Your task to perform on an android device: check data usage Image 0: 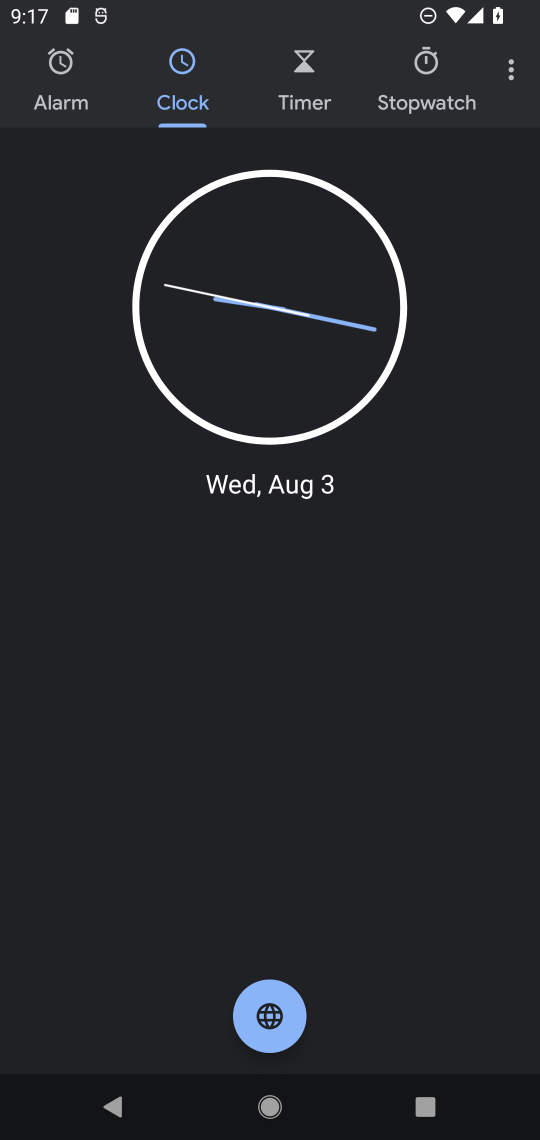
Step 0: press home button
Your task to perform on an android device: check data usage Image 1: 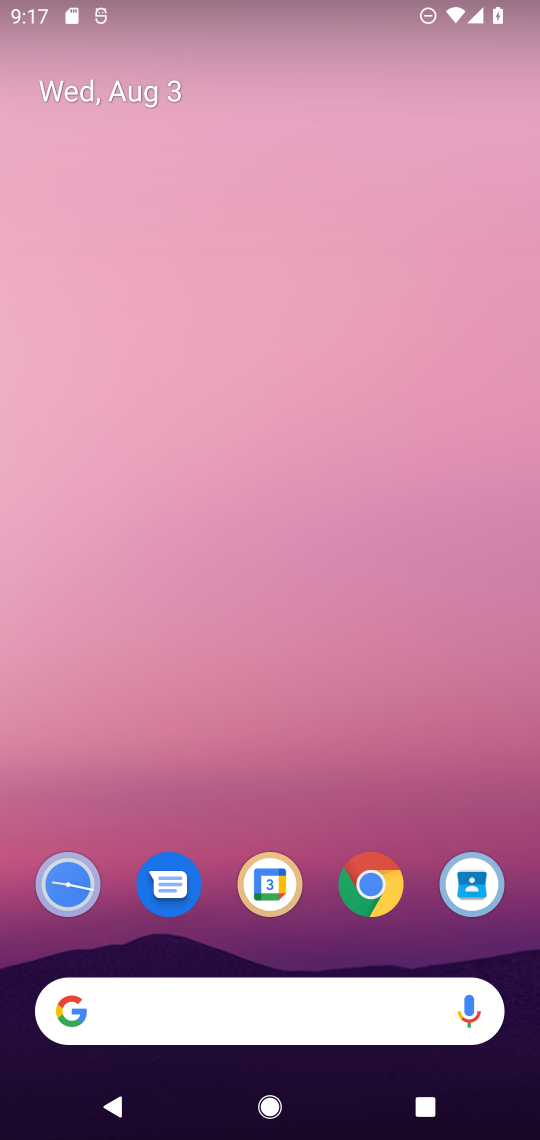
Step 1: drag from (76, 1073) to (228, 476)
Your task to perform on an android device: check data usage Image 2: 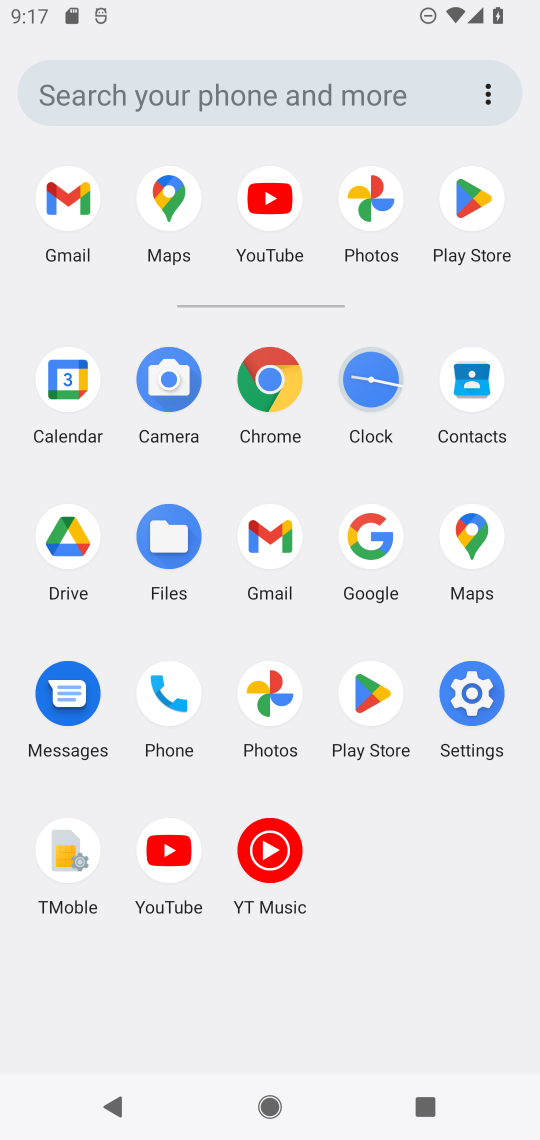
Step 2: click (489, 707)
Your task to perform on an android device: check data usage Image 3: 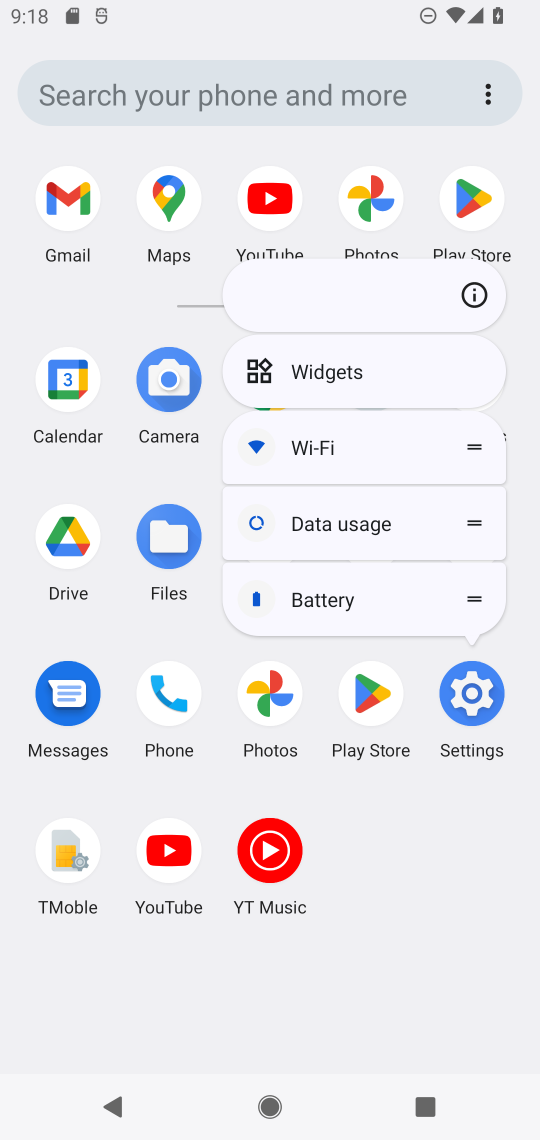
Step 3: click (394, 726)
Your task to perform on an android device: check data usage Image 4: 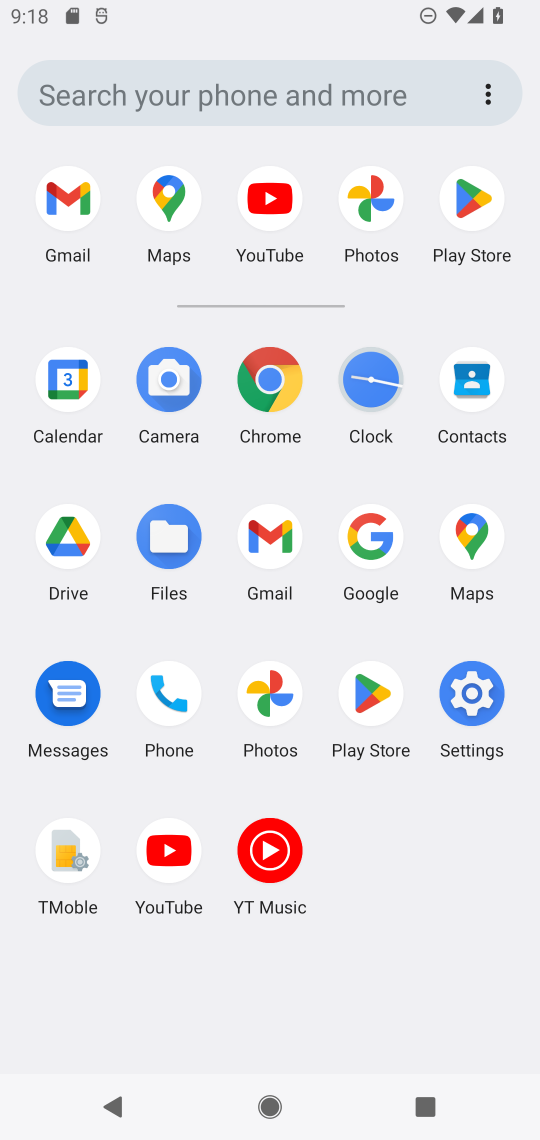
Step 4: click (468, 692)
Your task to perform on an android device: check data usage Image 5: 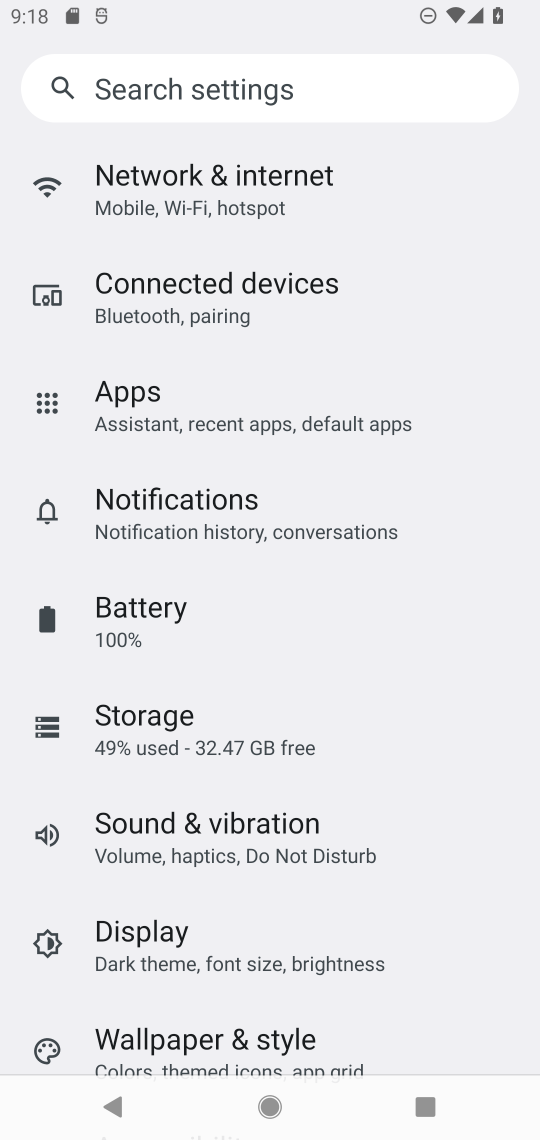
Step 5: click (207, 211)
Your task to perform on an android device: check data usage Image 6: 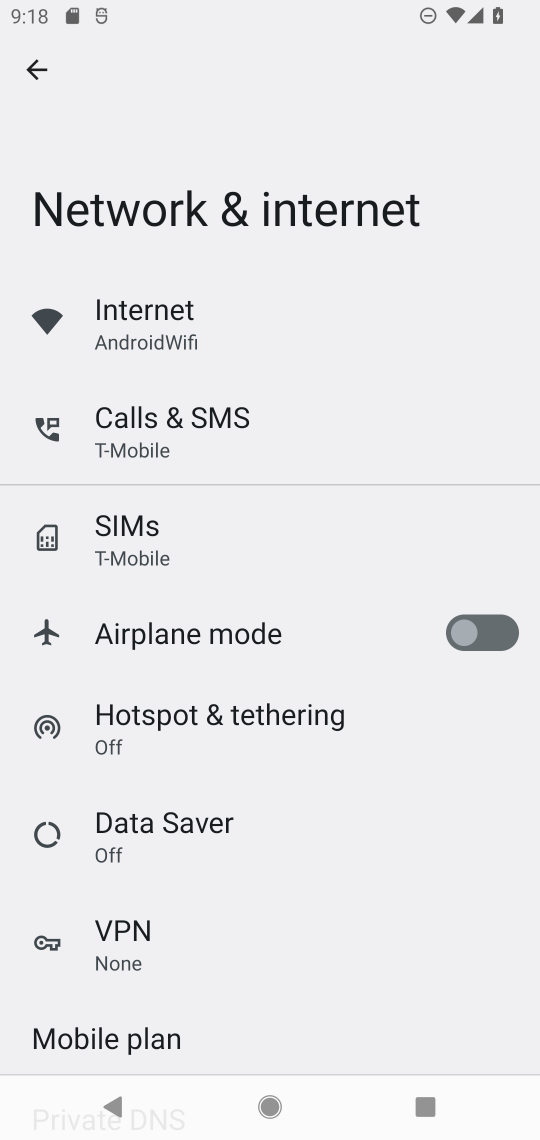
Step 6: click (201, 340)
Your task to perform on an android device: check data usage Image 7: 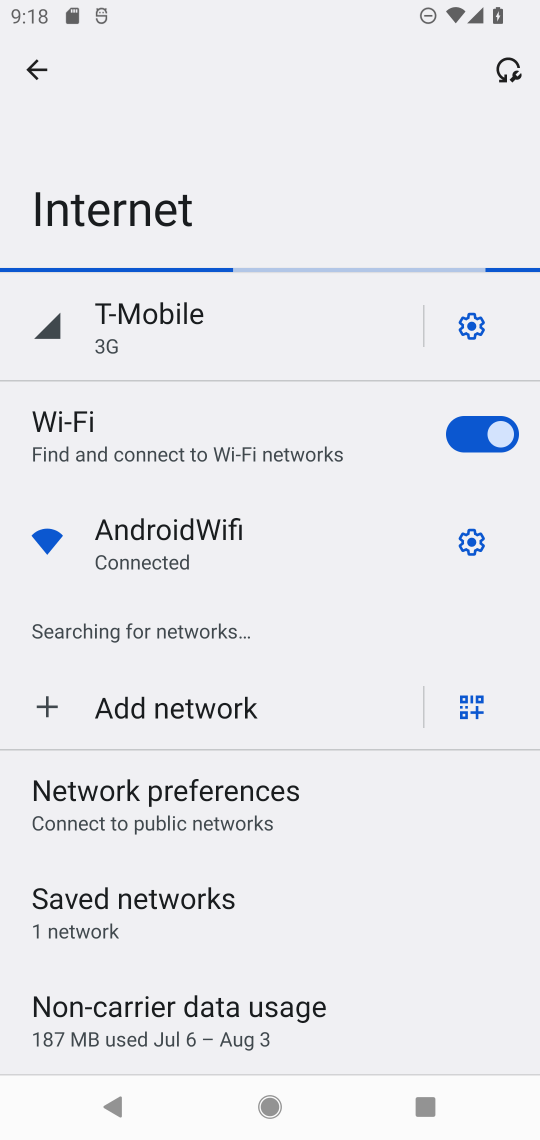
Step 7: click (135, 808)
Your task to perform on an android device: check data usage Image 8: 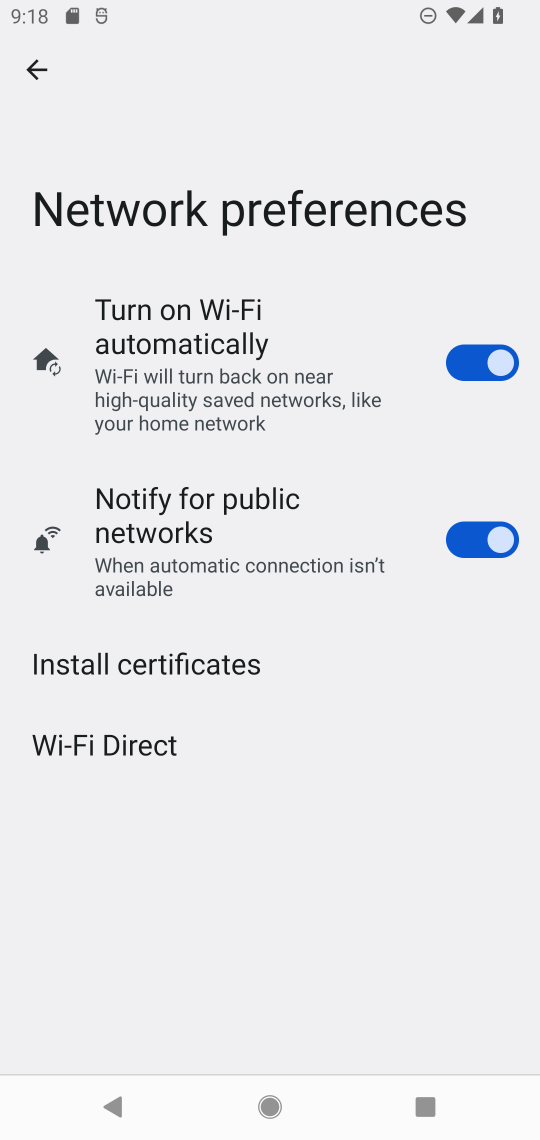
Step 8: task complete